Your task to perform on an android device: What's the weather? Image 0: 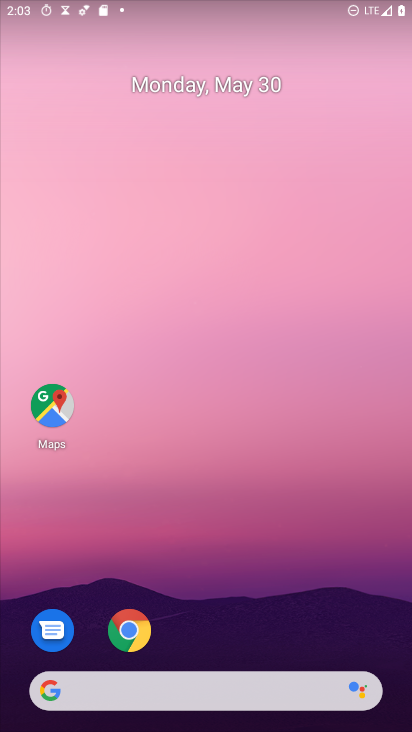
Step 0: drag from (256, 685) to (241, 245)
Your task to perform on an android device: What's the weather? Image 1: 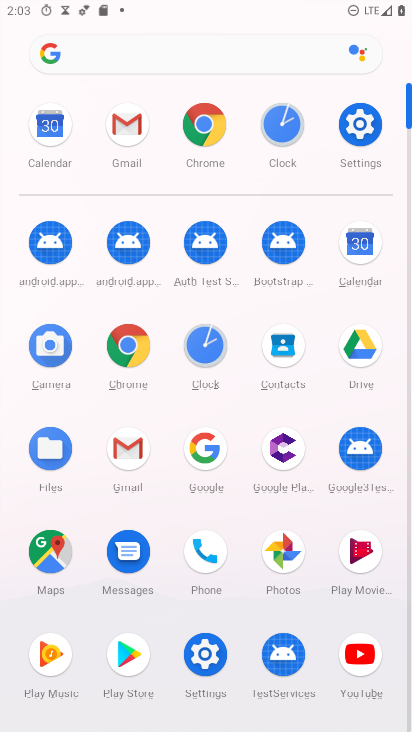
Step 1: click (75, 68)
Your task to perform on an android device: What's the weather? Image 2: 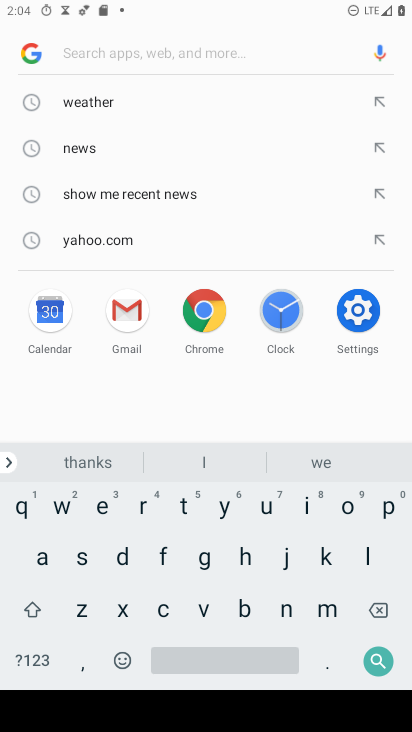
Step 2: click (70, 98)
Your task to perform on an android device: What's the weather? Image 3: 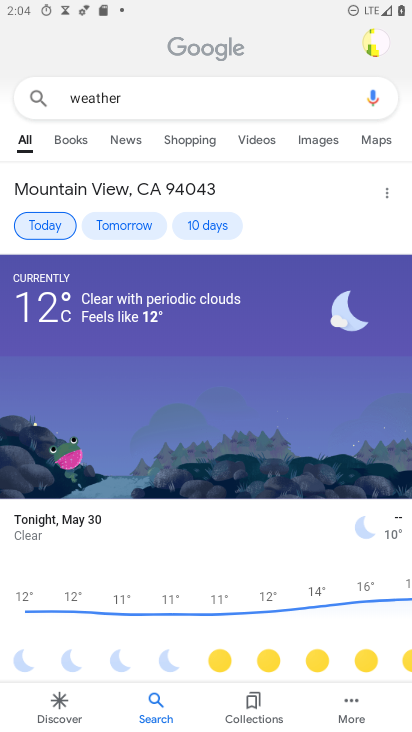
Step 3: task complete